Your task to perform on an android device: Open the stopwatch Image 0: 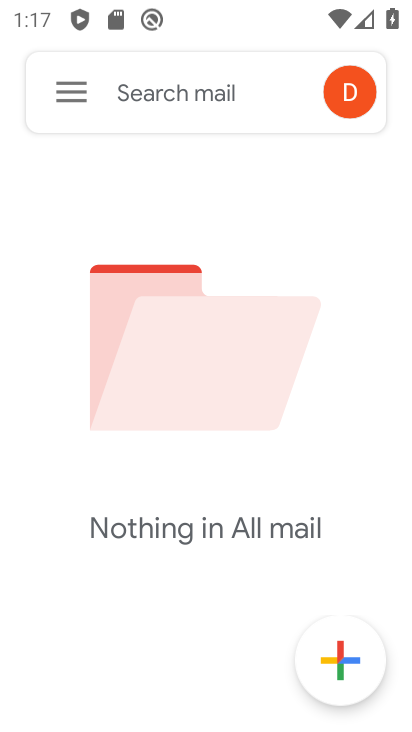
Step 0: press home button
Your task to perform on an android device: Open the stopwatch Image 1: 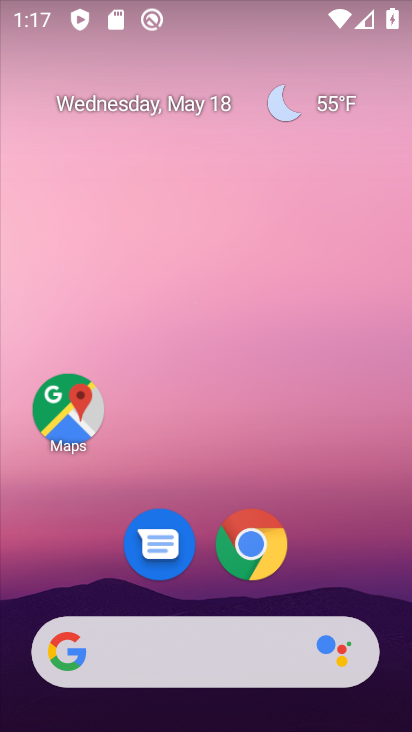
Step 1: drag from (344, 529) to (270, 216)
Your task to perform on an android device: Open the stopwatch Image 2: 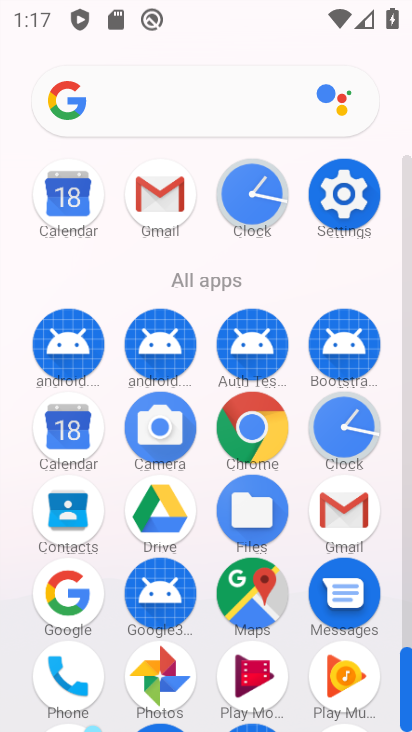
Step 2: click (249, 186)
Your task to perform on an android device: Open the stopwatch Image 3: 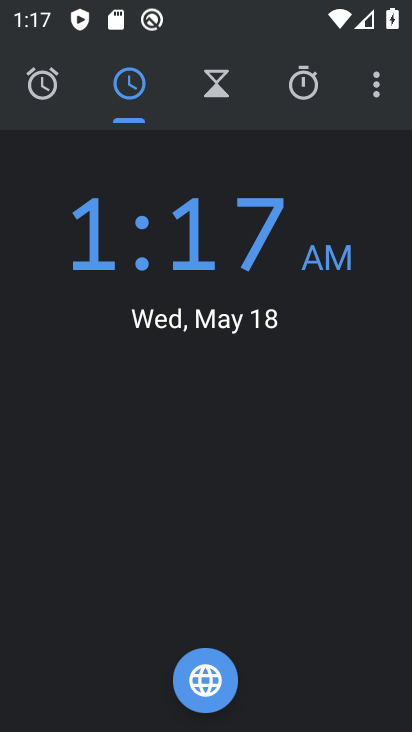
Step 3: click (309, 79)
Your task to perform on an android device: Open the stopwatch Image 4: 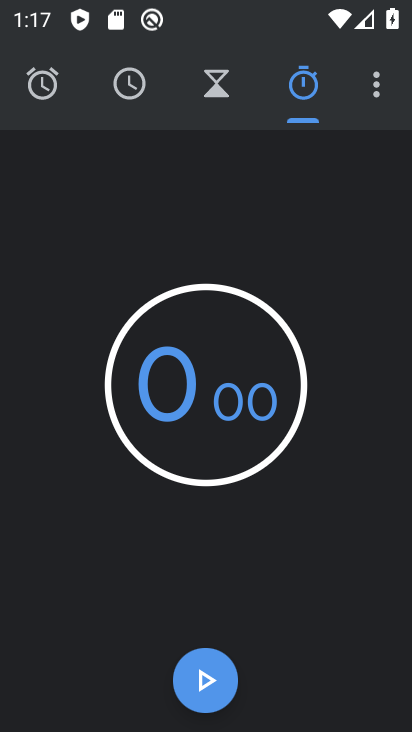
Step 4: click (194, 687)
Your task to perform on an android device: Open the stopwatch Image 5: 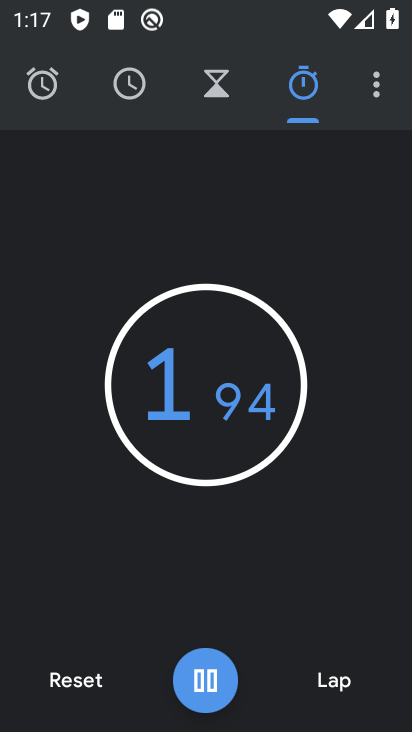
Step 5: task complete